Your task to perform on an android device: Open Maps and search for coffee Image 0: 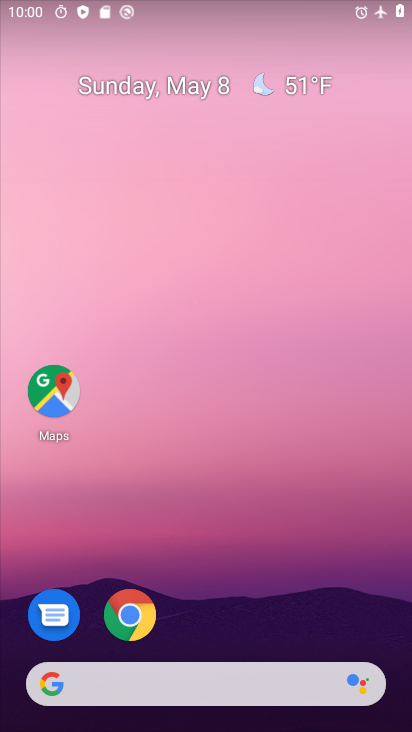
Step 0: click (60, 396)
Your task to perform on an android device: Open Maps and search for coffee Image 1: 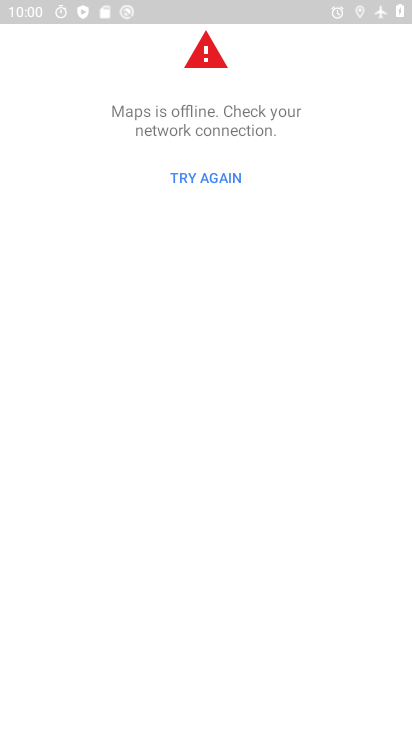
Step 1: task complete